Your task to perform on an android device: Search for hotels in Seattle Image 0: 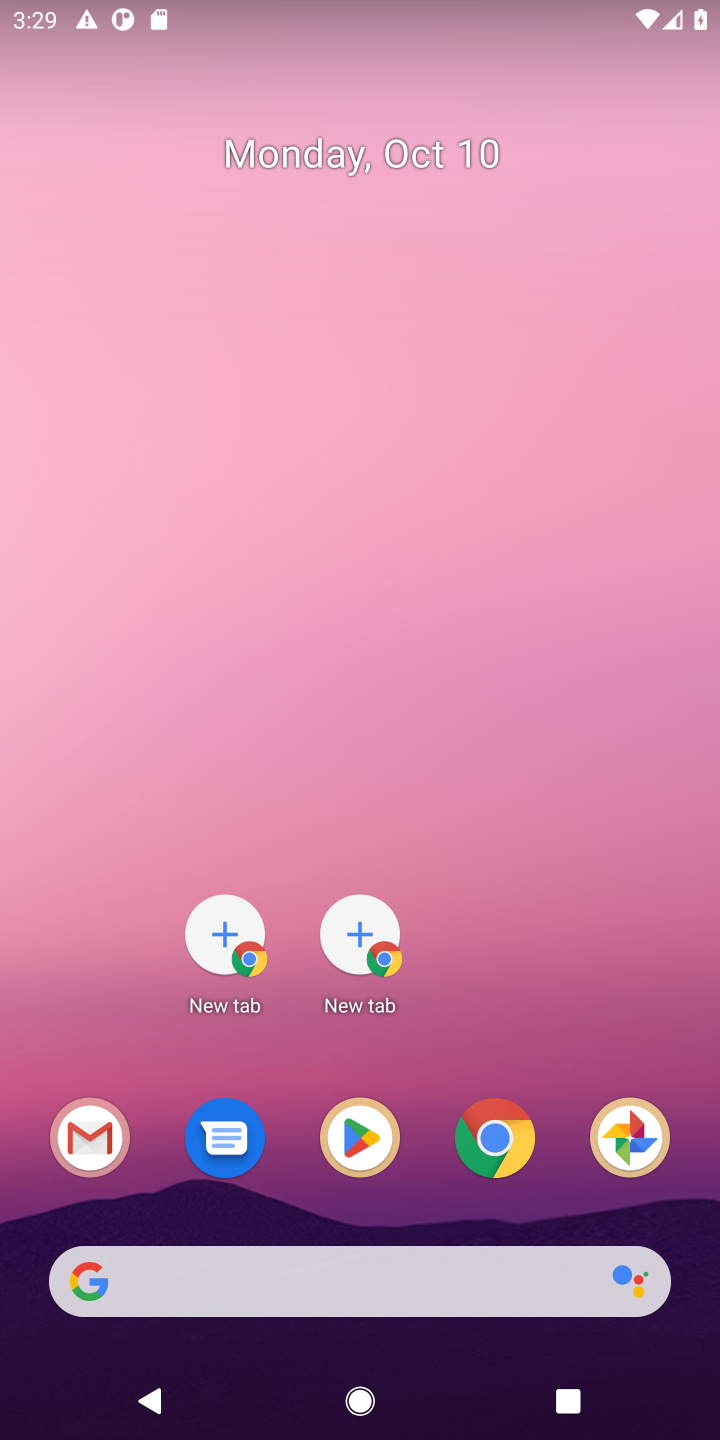
Step 0: click (513, 1155)
Your task to perform on an android device: Search for hotels in Seattle Image 1: 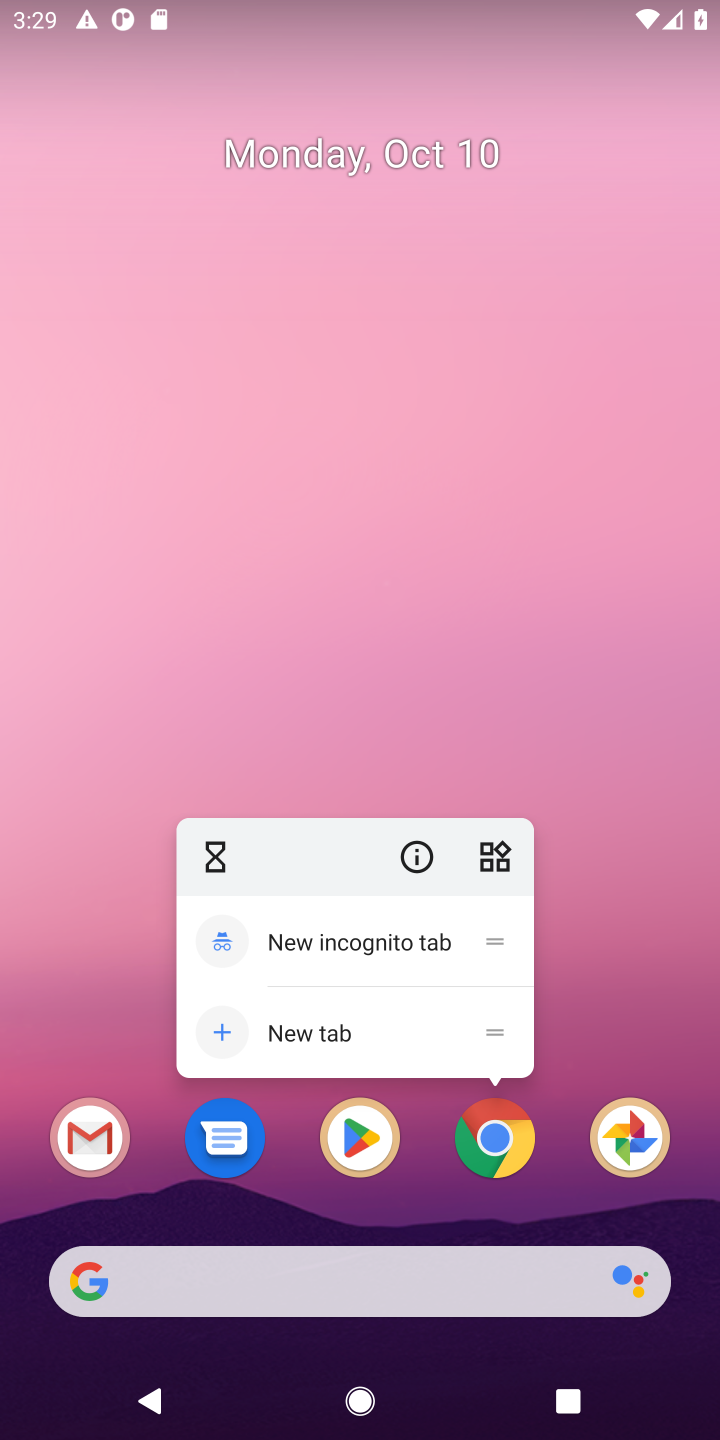
Step 1: click (494, 1154)
Your task to perform on an android device: Search for hotels in Seattle Image 2: 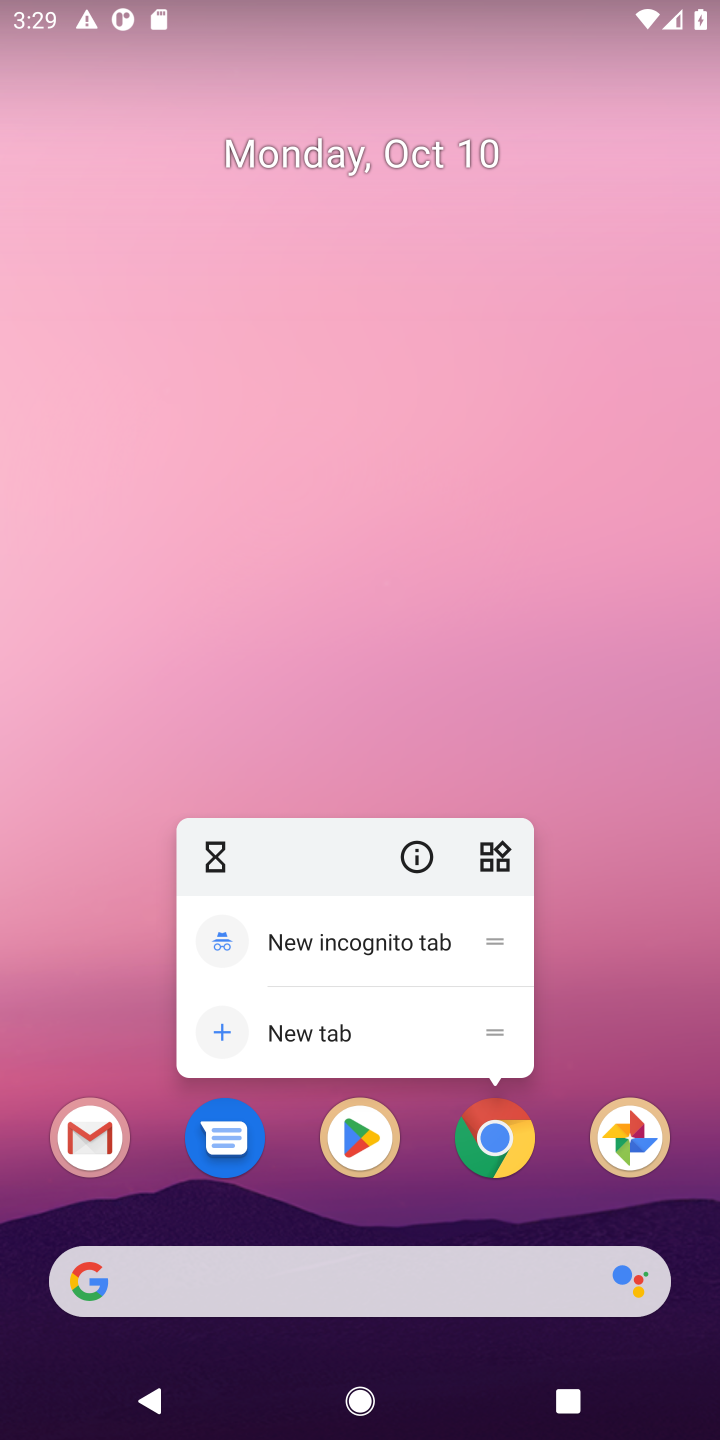
Step 2: click (497, 1161)
Your task to perform on an android device: Search for hotels in Seattle Image 3: 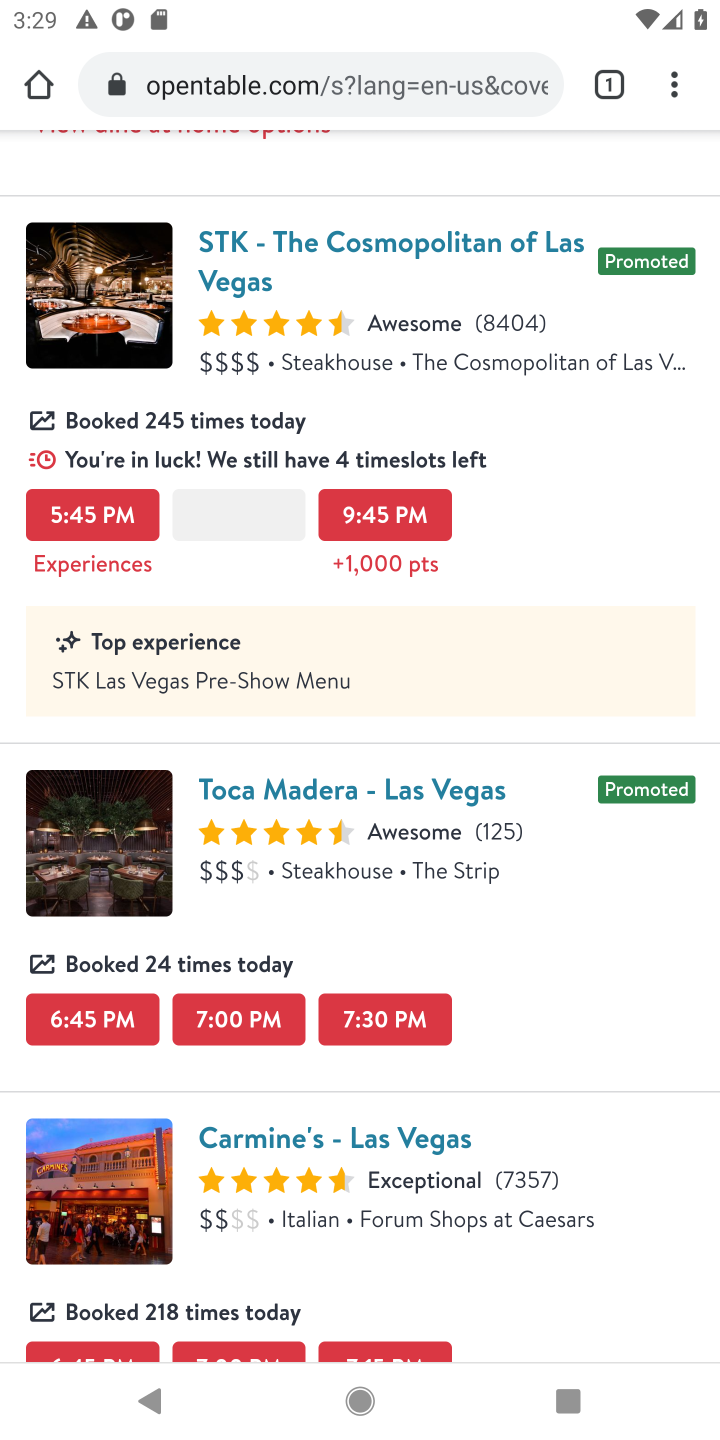
Step 3: click (351, 102)
Your task to perform on an android device: Search for hotels in Seattle Image 4: 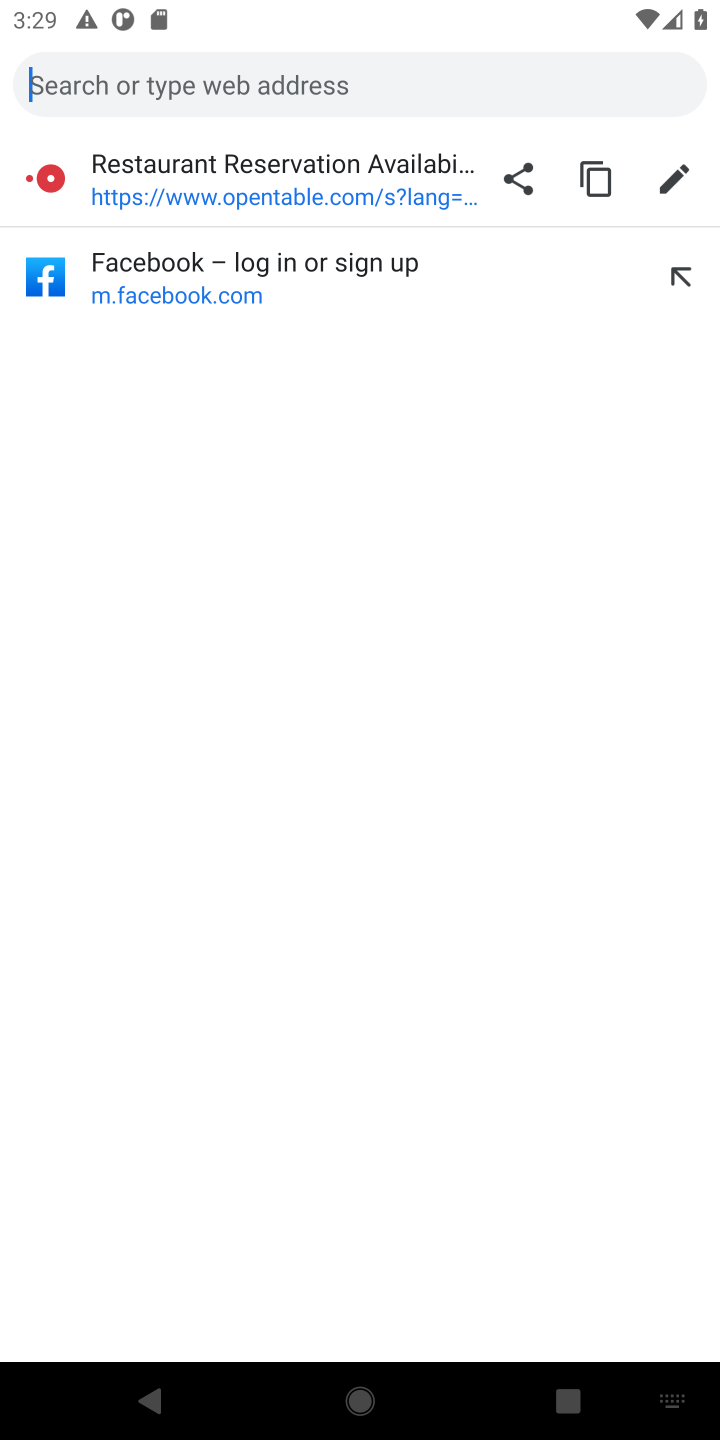
Step 4: type "hotels in seattle"
Your task to perform on an android device: Search for hotels in Seattle Image 5: 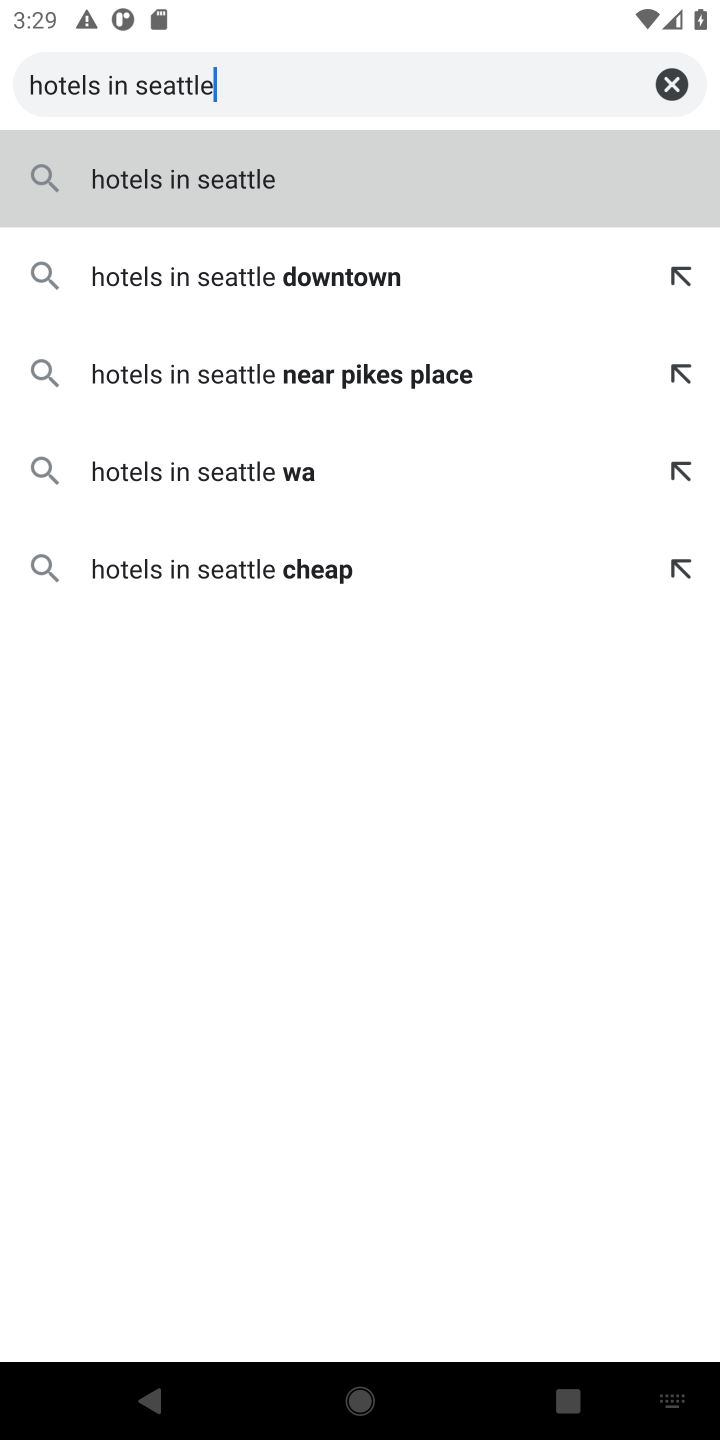
Step 5: press enter
Your task to perform on an android device: Search for hotels in Seattle Image 6: 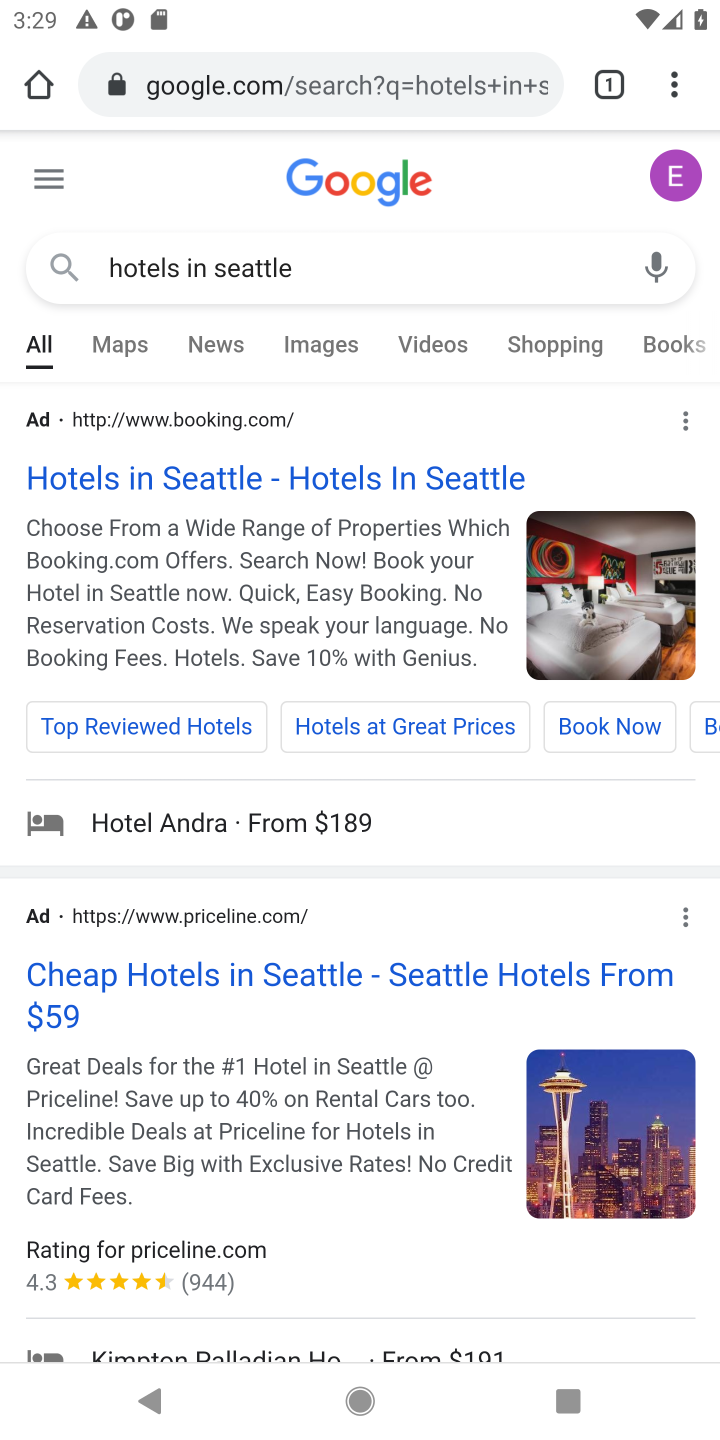
Step 6: click (323, 491)
Your task to perform on an android device: Search for hotels in Seattle Image 7: 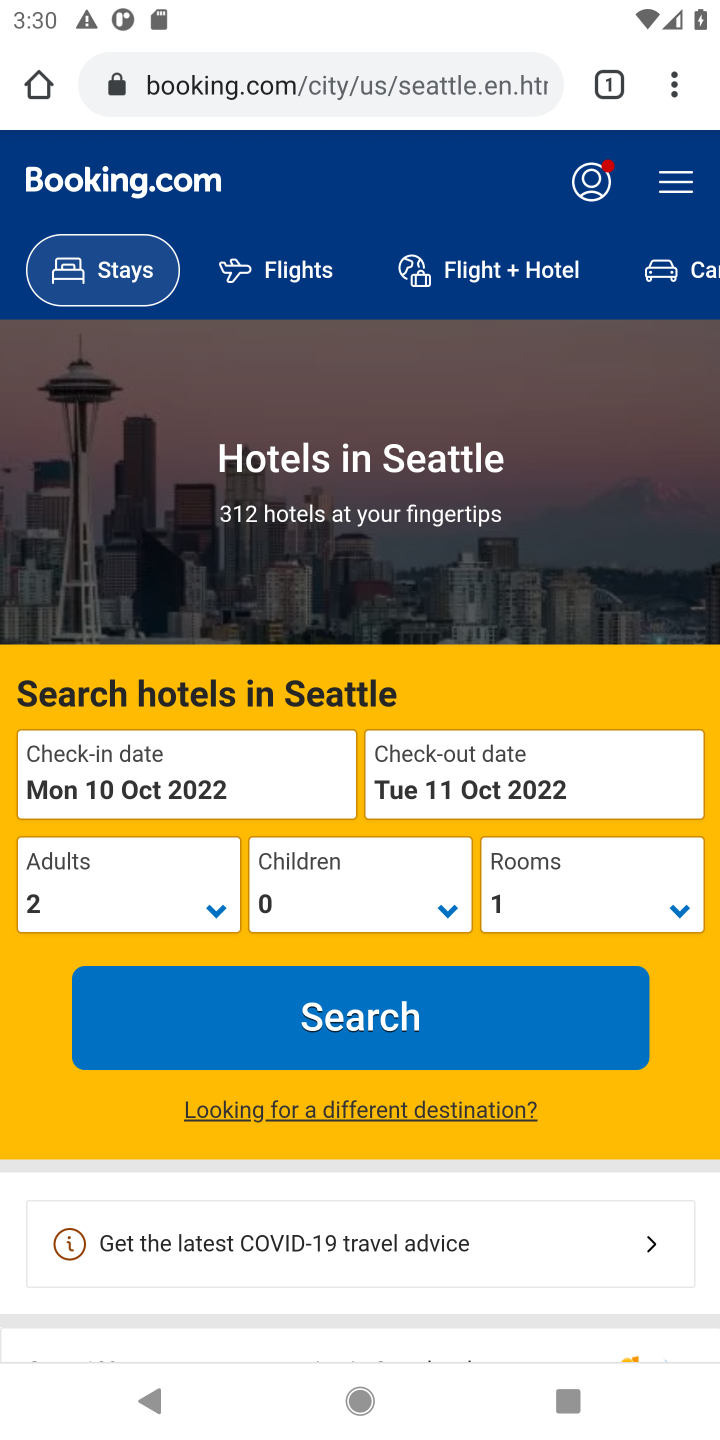
Step 7: task complete